Your task to perform on an android device: open wifi settings Image 0: 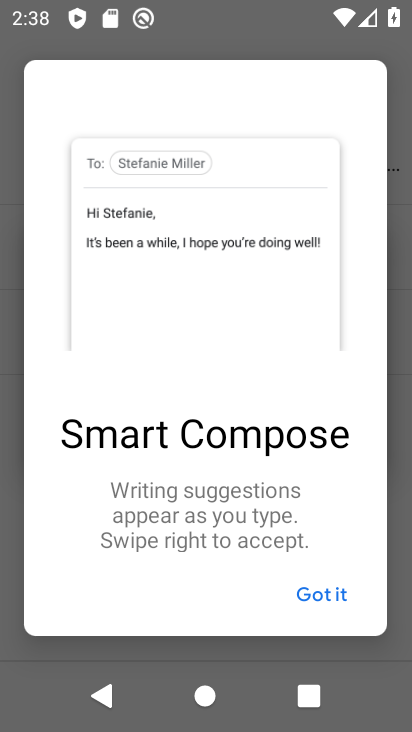
Step 0: press home button
Your task to perform on an android device: open wifi settings Image 1: 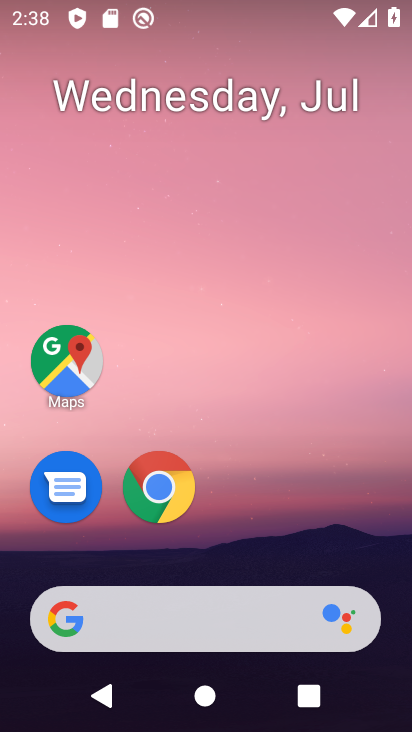
Step 1: drag from (309, 550) to (296, 173)
Your task to perform on an android device: open wifi settings Image 2: 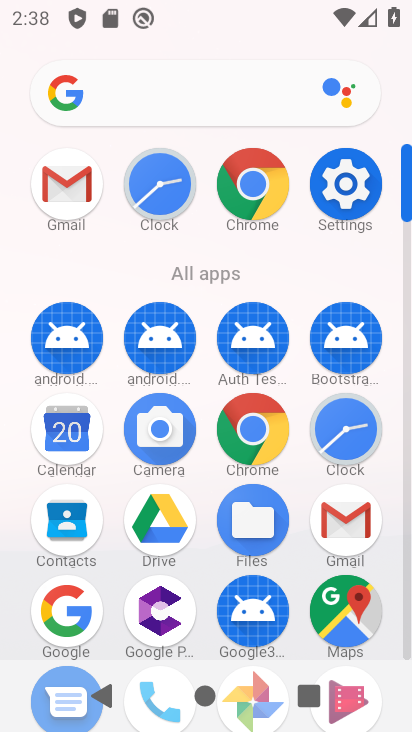
Step 2: click (359, 209)
Your task to perform on an android device: open wifi settings Image 3: 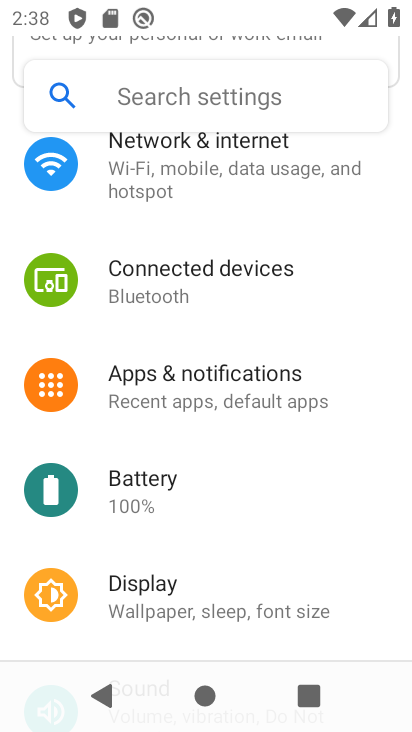
Step 3: click (288, 183)
Your task to perform on an android device: open wifi settings Image 4: 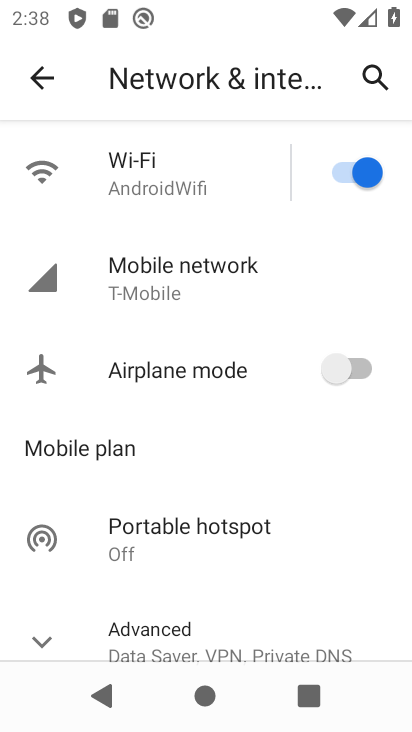
Step 4: click (190, 188)
Your task to perform on an android device: open wifi settings Image 5: 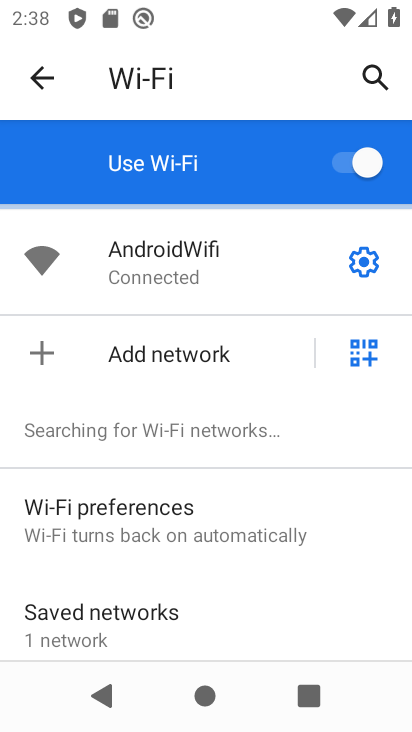
Step 5: task complete